Your task to perform on an android device: Add panasonic triple a to the cart on costco Image 0: 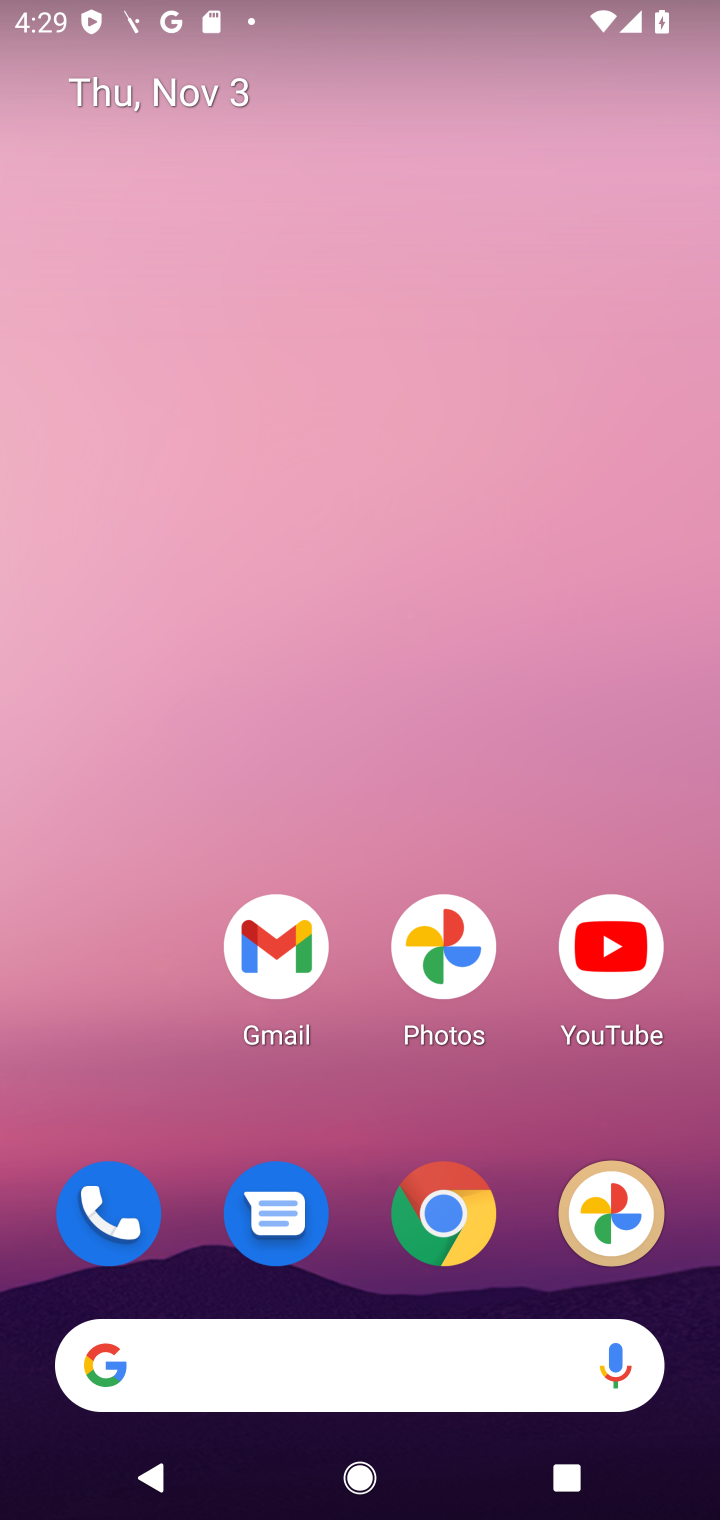
Step 0: click (448, 1231)
Your task to perform on an android device: Add panasonic triple a to the cart on costco Image 1: 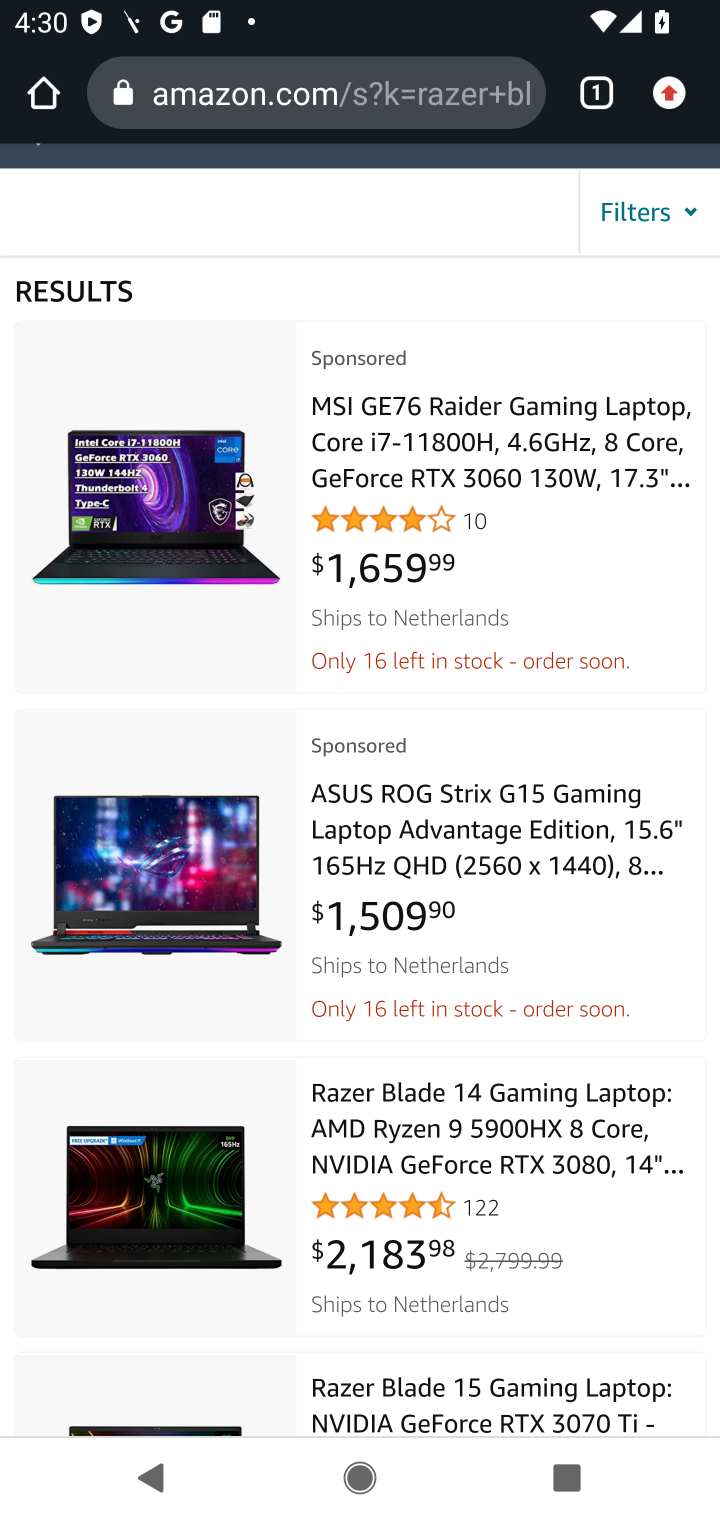
Step 1: click (319, 110)
Your task to perform on an android device: Add panasonic triple a to the cart on costco Image 2: 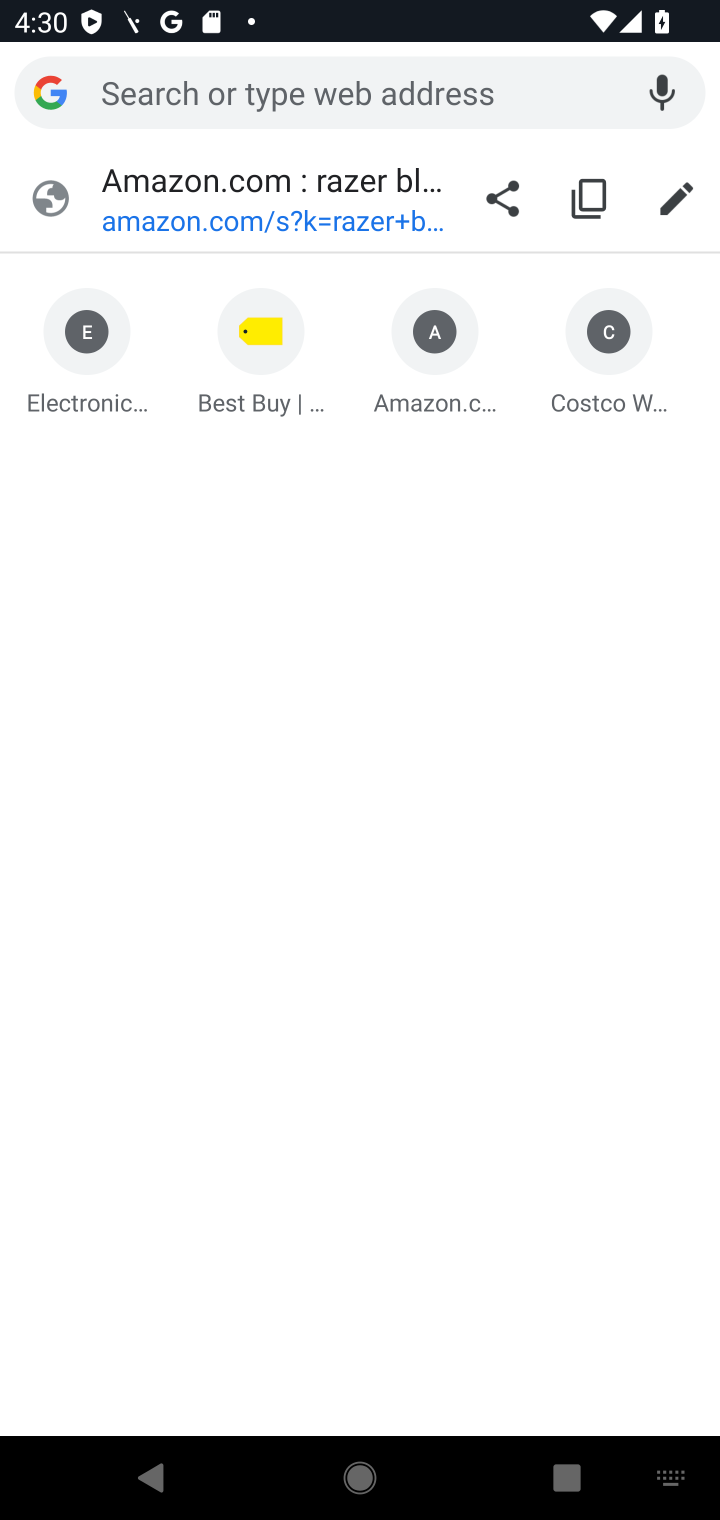
Step 2: type "costco.com"
Your task to perform on an android device: Add panasonic triple a to the cart on costco Image 3: 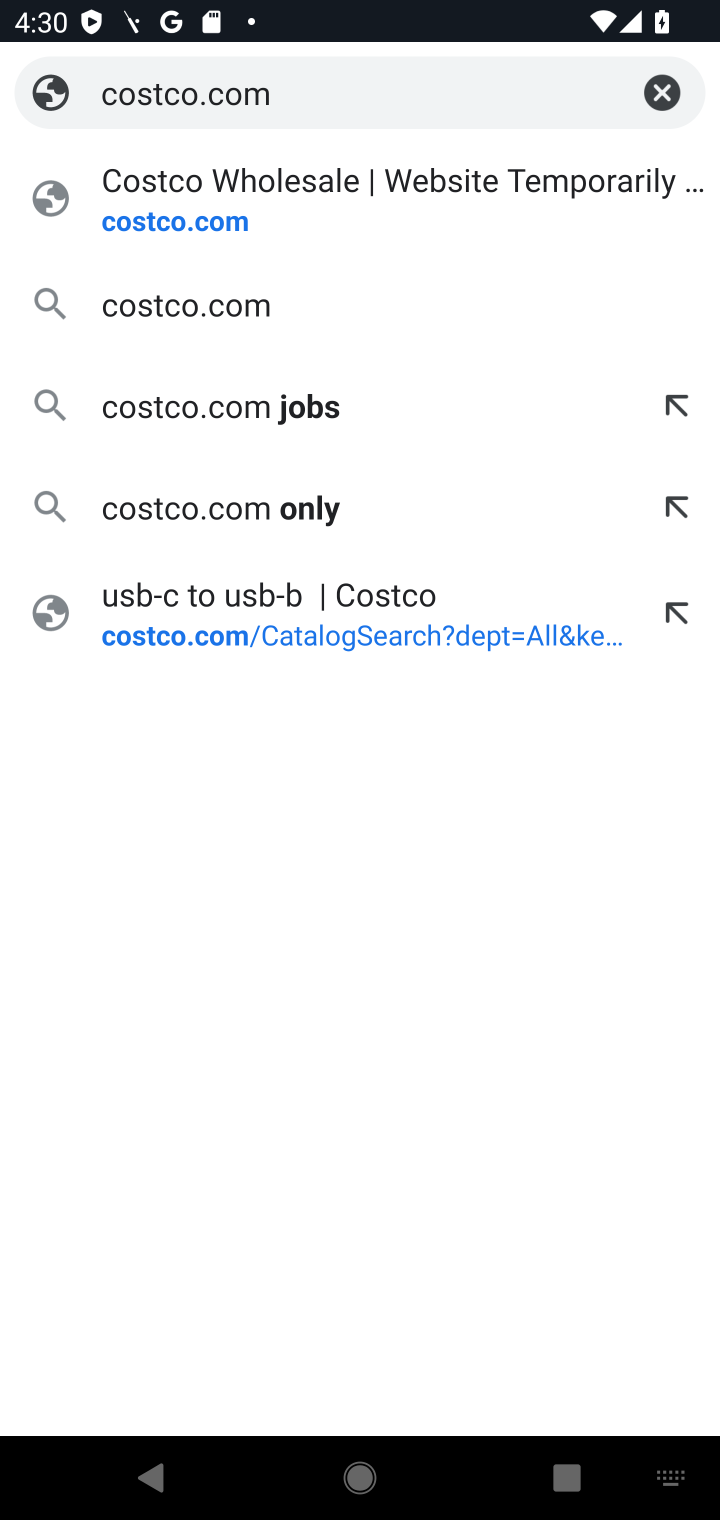
Step 3: click (200, 220)
Your task to perform on an android device: Add panasonic triple a to the cart on costco Image 4: 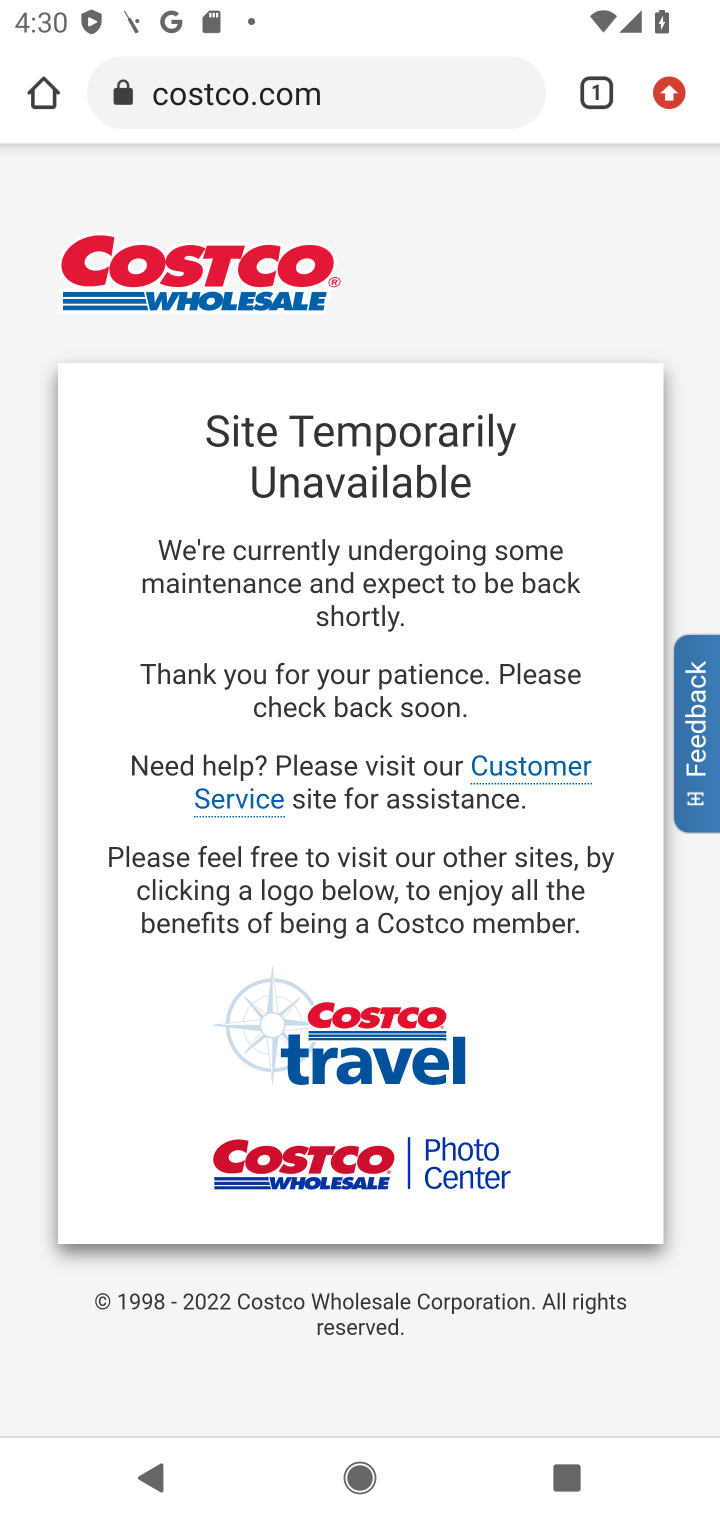
Step 4: task complete